Your task to perform on an android device: When is my next meeting? Image 0: 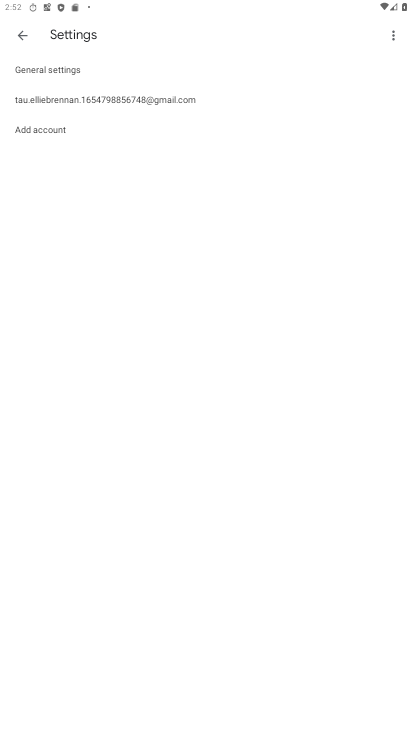
Step 0: press home button
Your task to perform on an android device: When is my next meeting? Image 1: 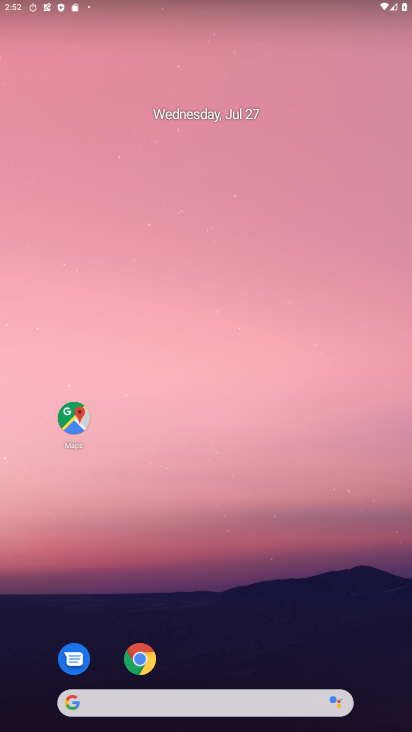
Step 1: drag from (210, 728) to (208, 100)
Your task to perform on an android device: When is my next meeting? Image 2: 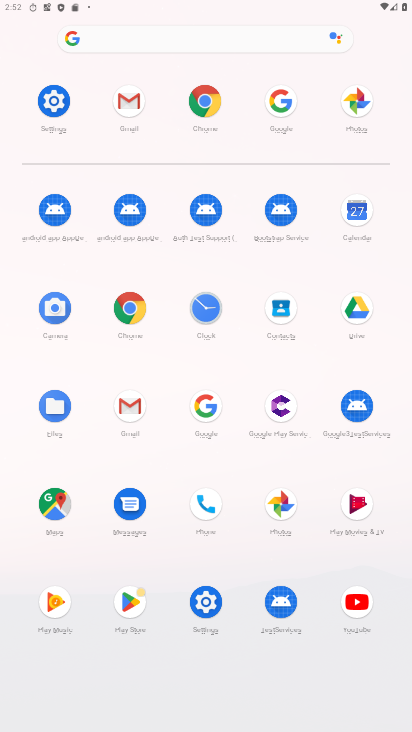
Step 2: click (355, 212)
Your task to perform on an android device: When is my next meeting? Image 3: 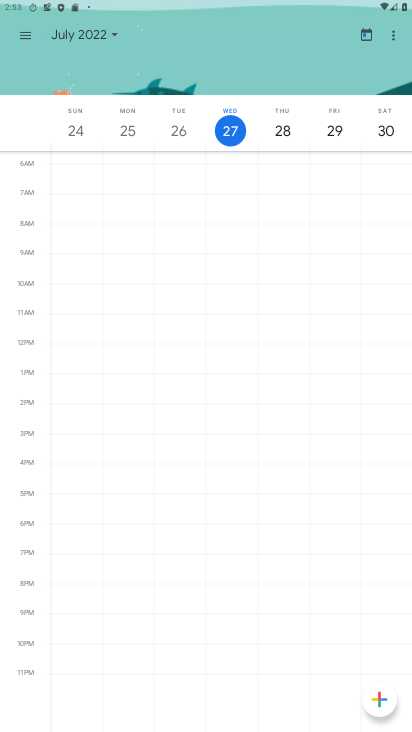
Step 3: click (282, 131)
Your task to perform on an android device: When is my next meeting? Image 4: 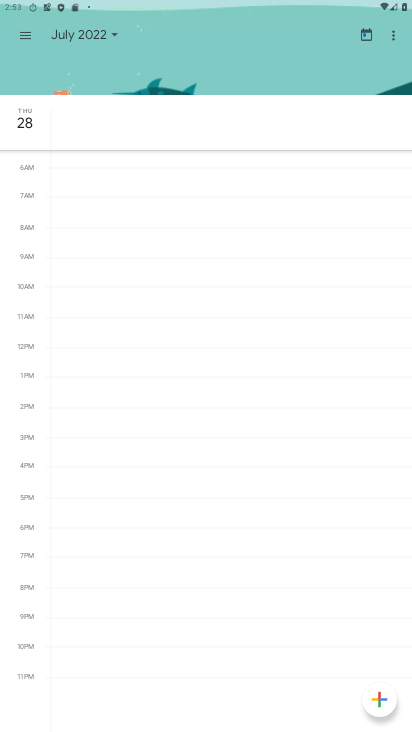
Step 4: task complete